Your task to perform on an android device: choose inbox layout in the gmail app Image 0: 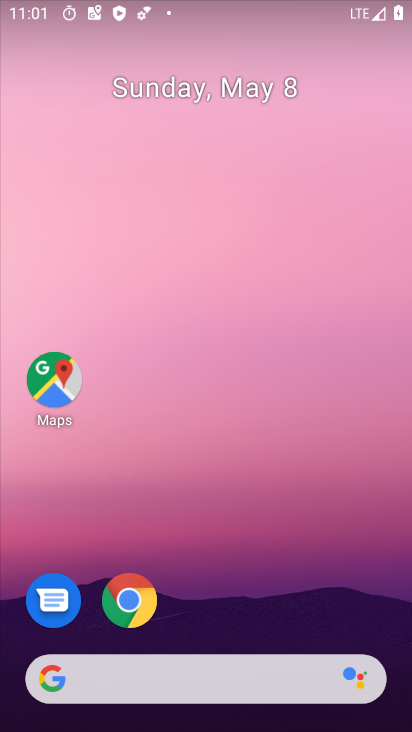
Step 0: drag from (43, 579) to (244, 174)
Your task to perform on an android device: choose inbox layout in the gmail app Image 1: 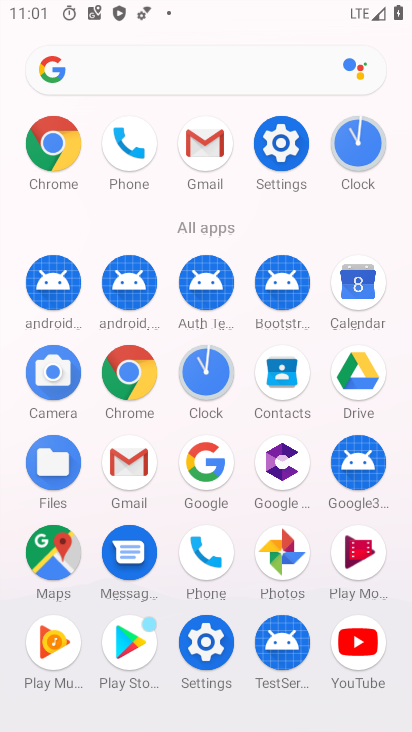
Step 1: click (192, 147)
Your task to perform on an android device: choose inbox layout in the gmail app Image 2: 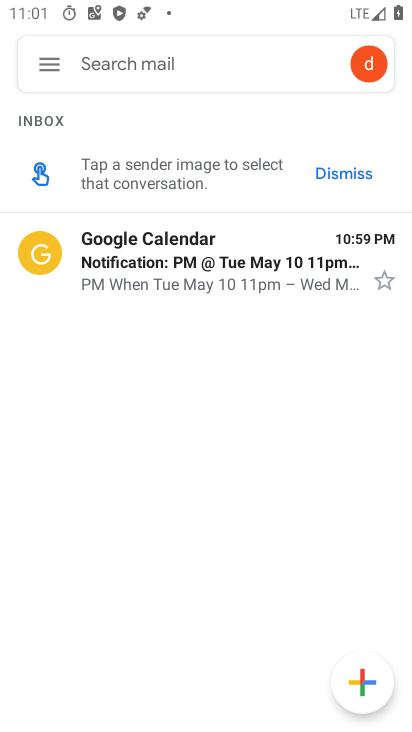
Step 2: click (24, 63)
Your task to perform on an android device: choose inbox layout in the gmail app Image 3: 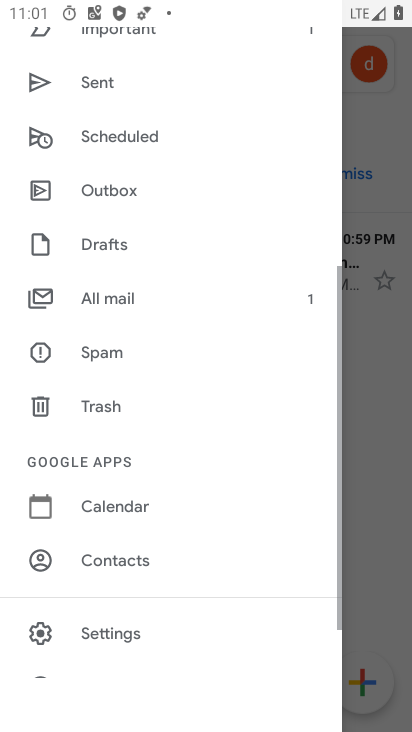
Step 3: drag from (116, 146) to (58, 676)
Your task to perform on an android device: choose inbox layout in the gmail app Image 4: 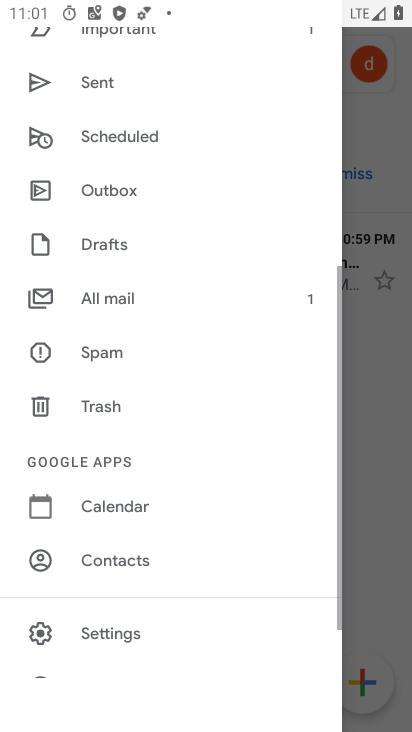
Step 4: drag from (94, 181) to (73, 708)
Your task to perform on an android device: choose inbox layout in the gmail app Image 5: 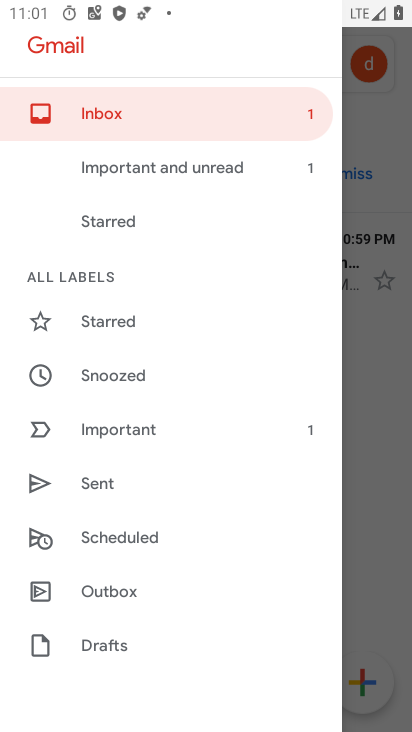
Step 5: click (141, 119)
Your task to perform on an android device: choose inbox layout in the gmail app Image 6: 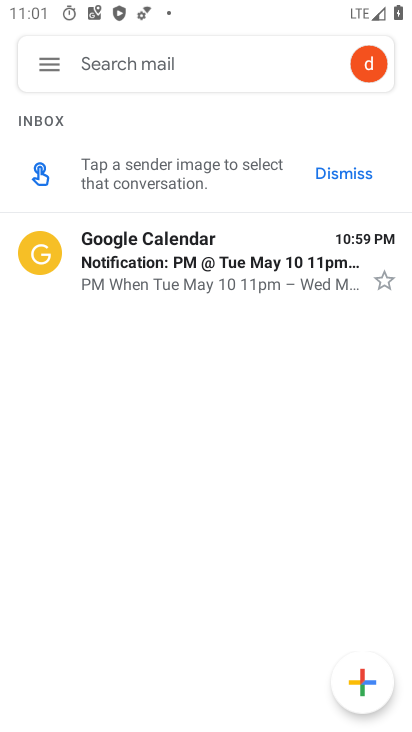
Step 6: task complete